Your task to perform on an android device: Open Maps and search for coffee Image 0: 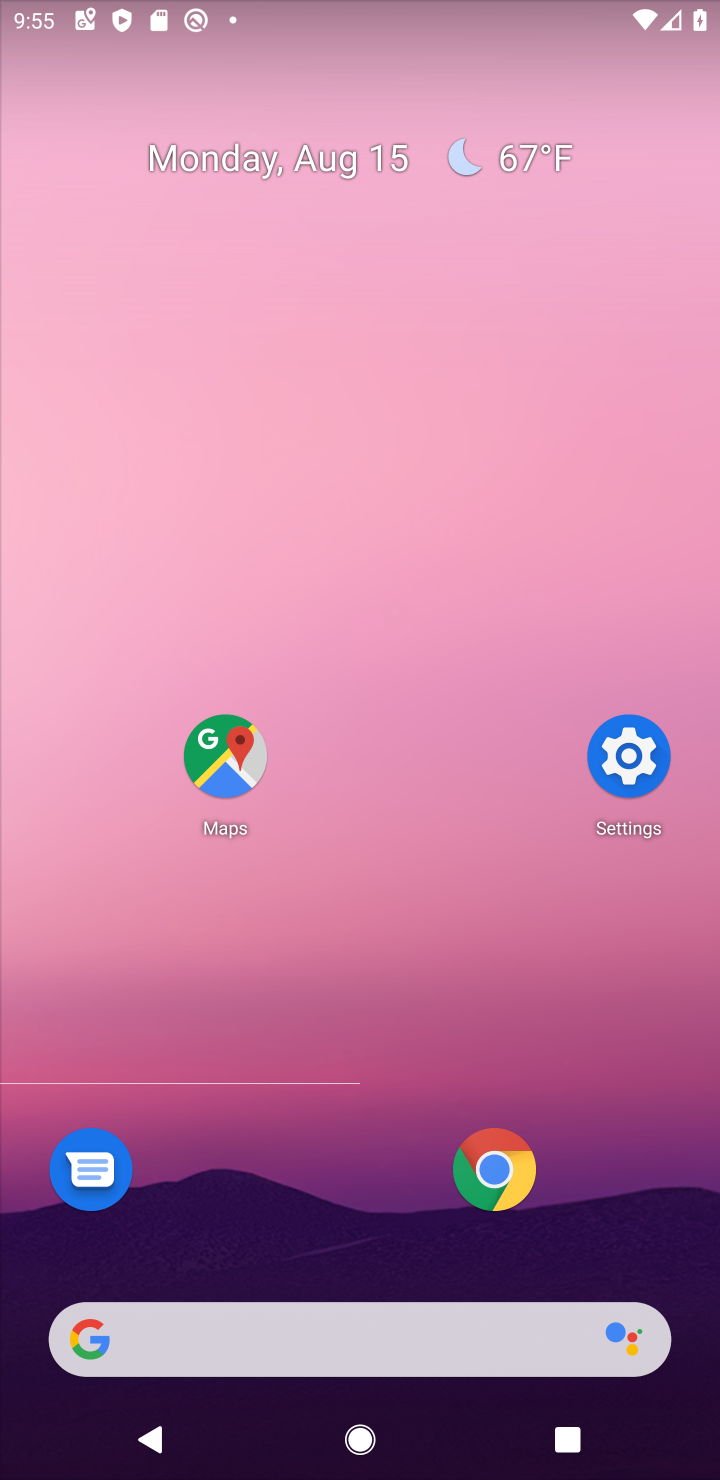
Step 0: click (223, 749)
Your task to perform on an android device: Open Maps and search for coffee Image 1: 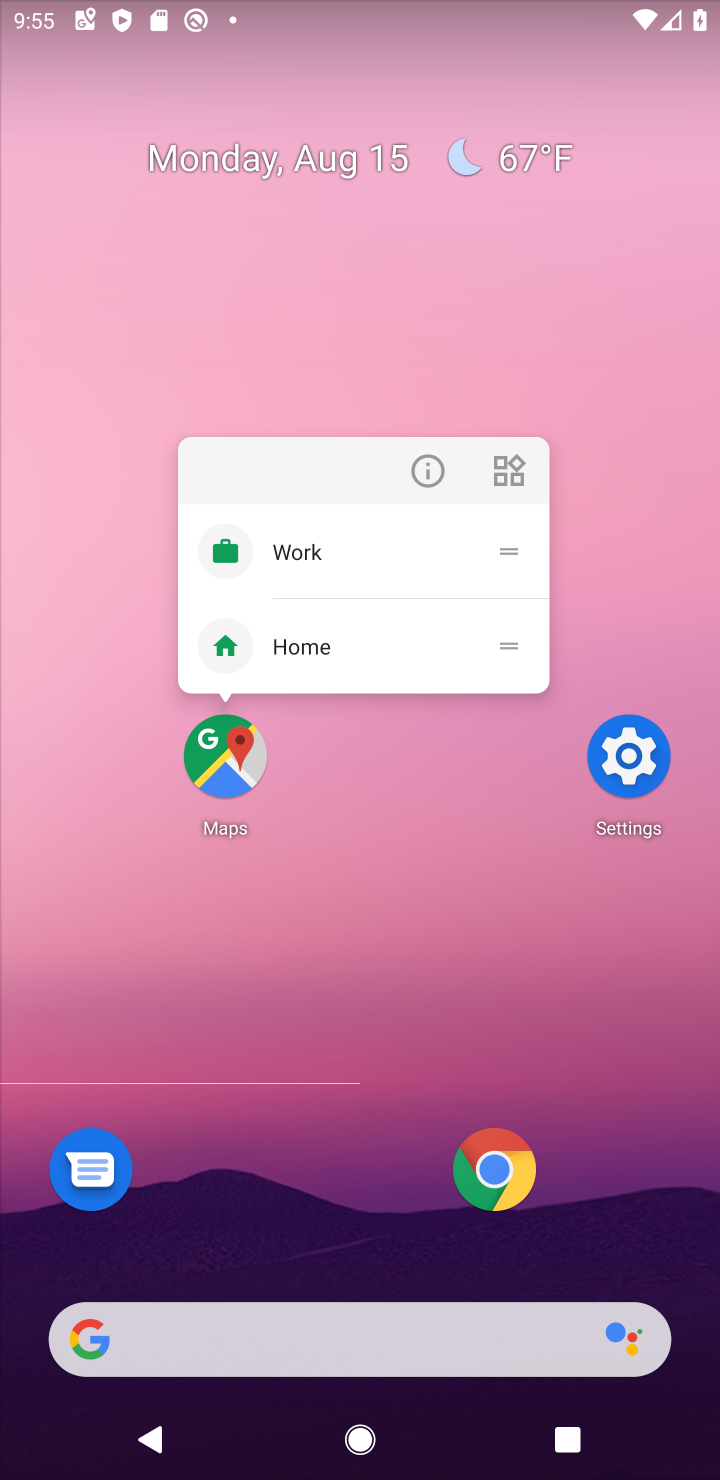
Step 1: click (229, 768)
Your task to perform on an android device: Open Maps and search for coffee Image 2: 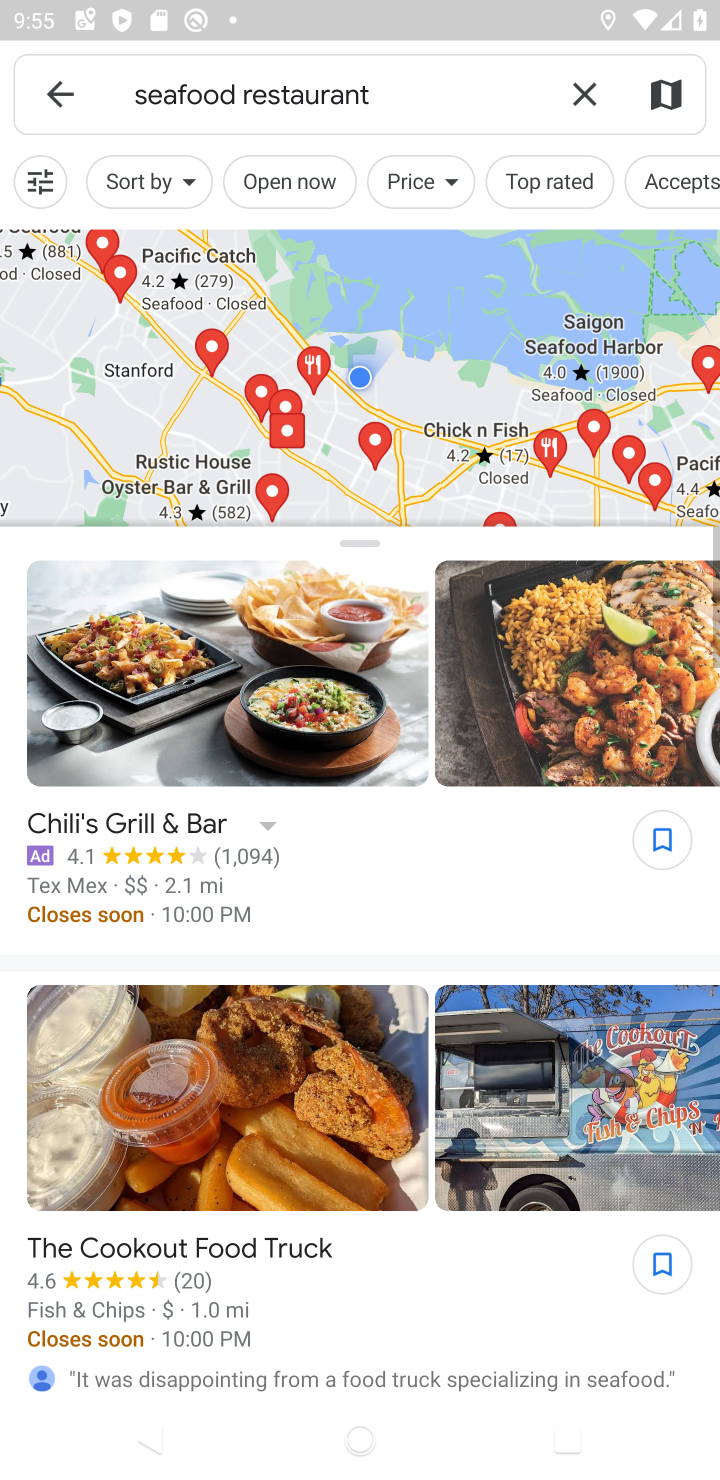
Step 2: click (578, 86)
Your task to perform on an android device: Open Maps and search for coffee Image 3: 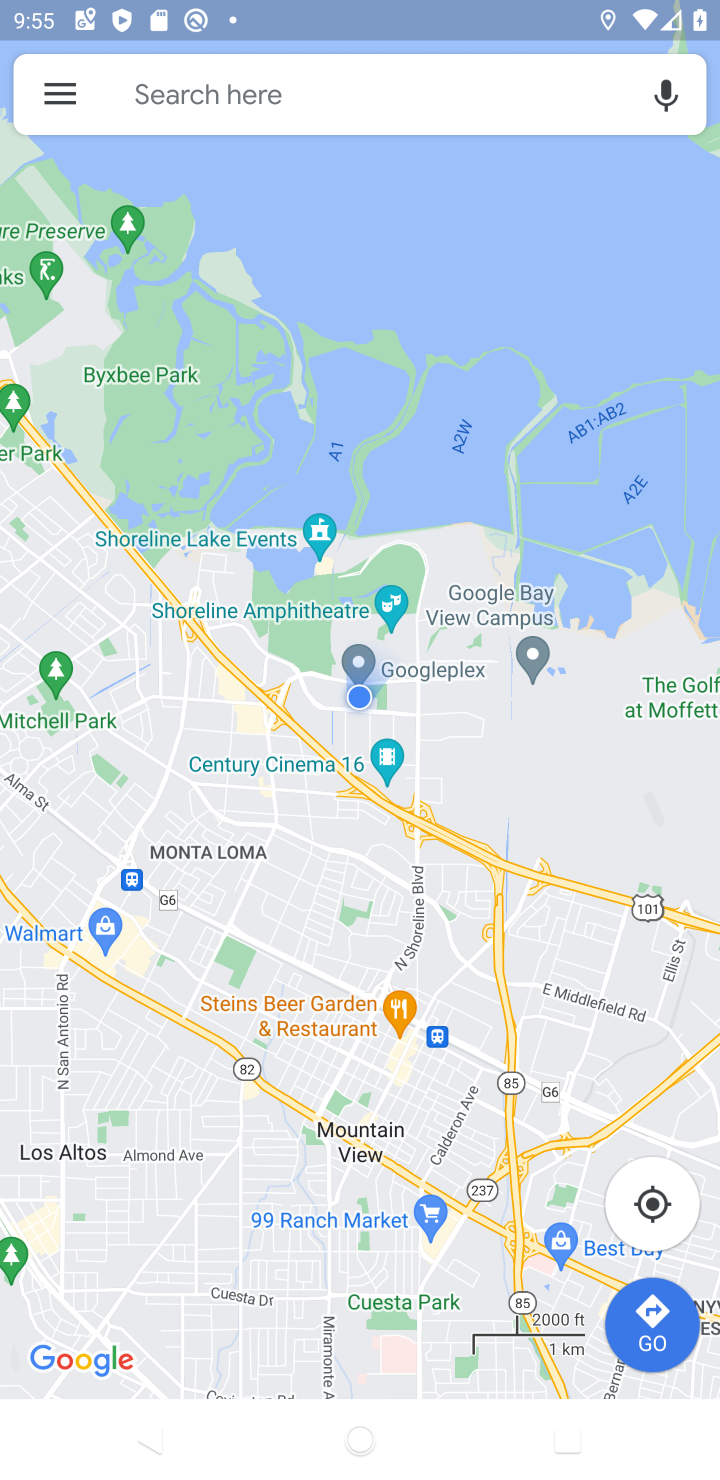
Step 3: click (336, 96)
Your task to perform on an android device: Open Maps and search for coffee Image 4: 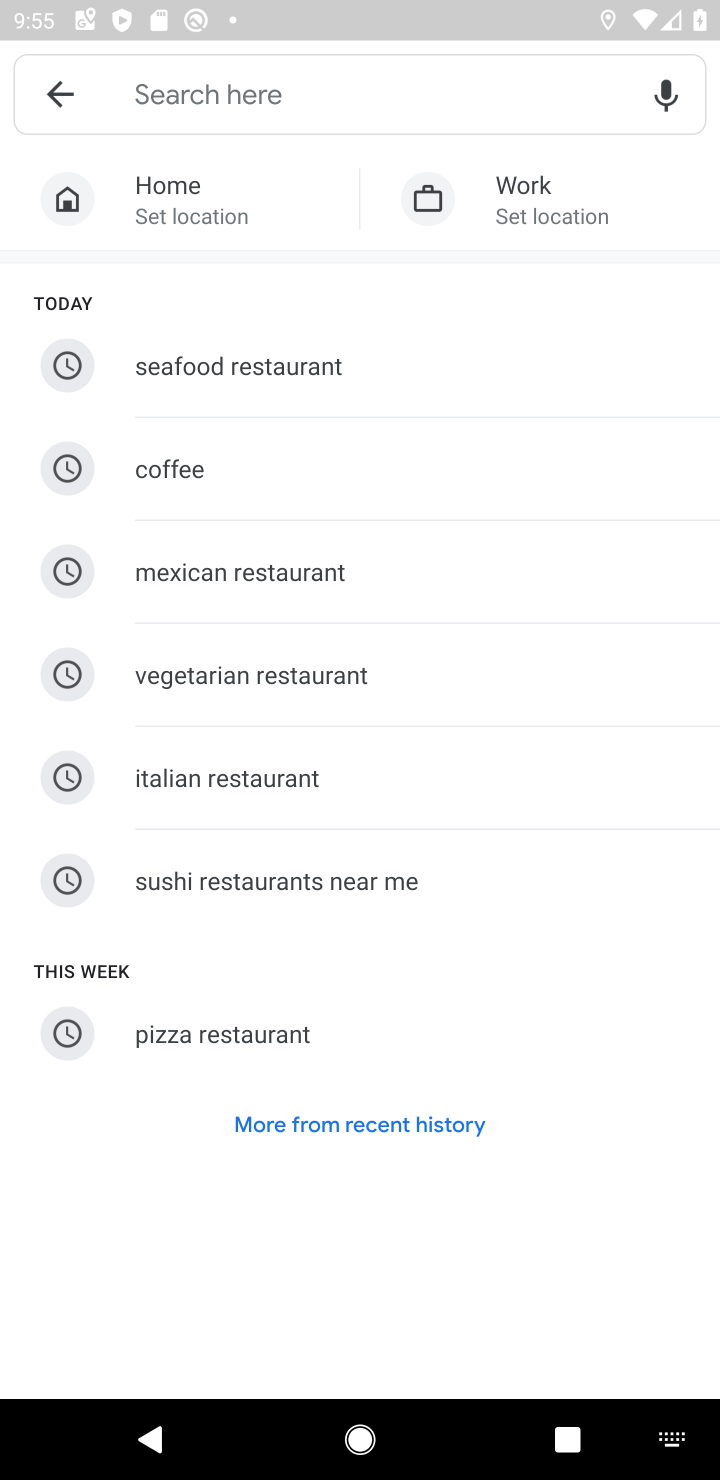
Step 4: click (197, 469)
Your task to perform on an android device: Open Maps and search for coffee Image 5: 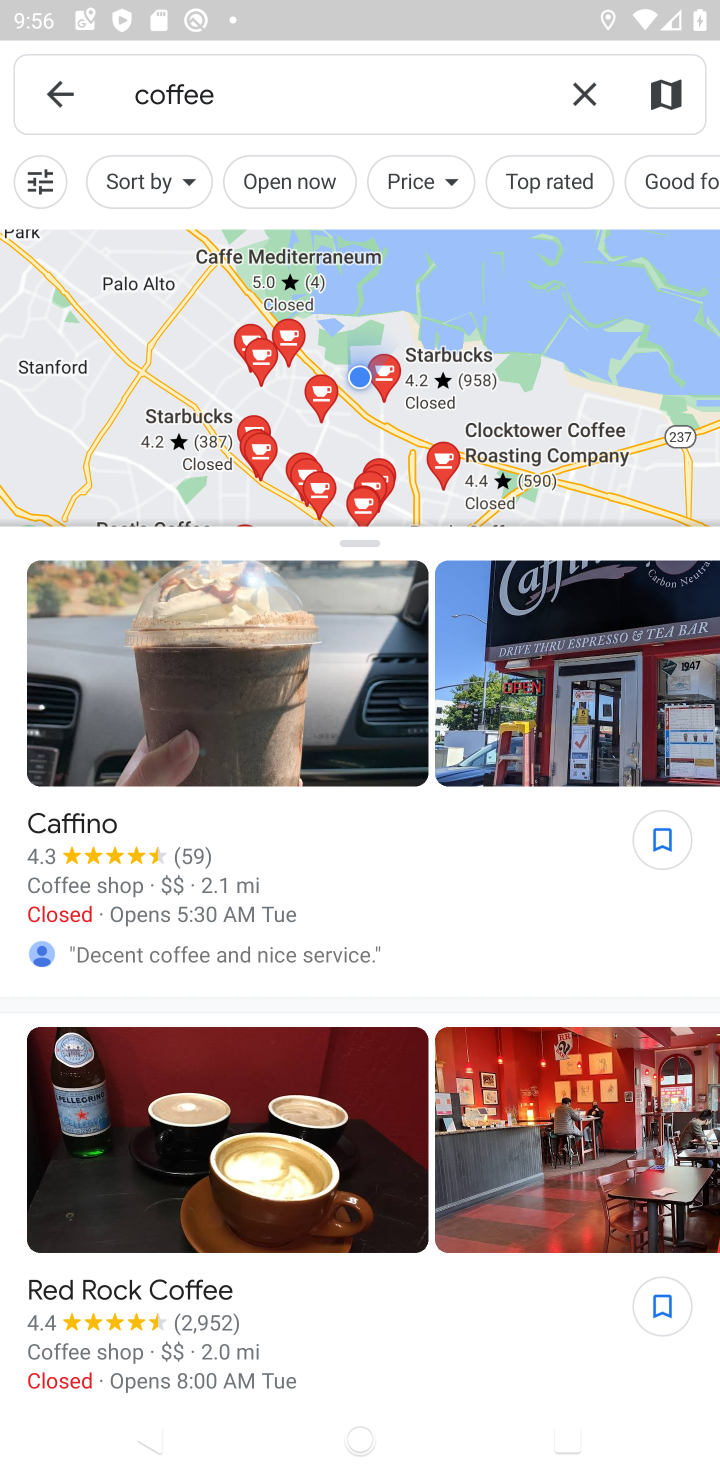
Step 5: task complete